Your task to perform on an android device: turn off location history Image 0: 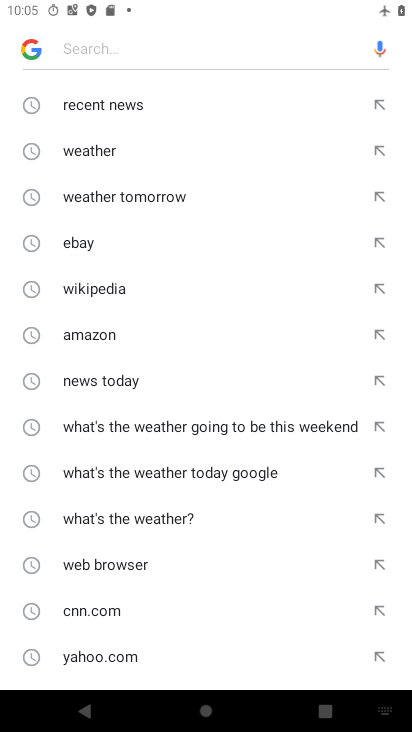
Step 0: press home button
Your task to perform on an android device: turn off location history Image 1: 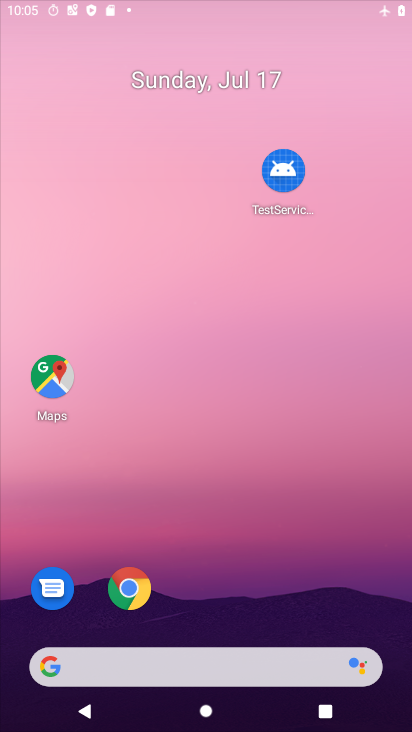
Step 1: drag from (201, 422) to (262, 41)
Your task to perform on an android device: turn off location history Image 2: 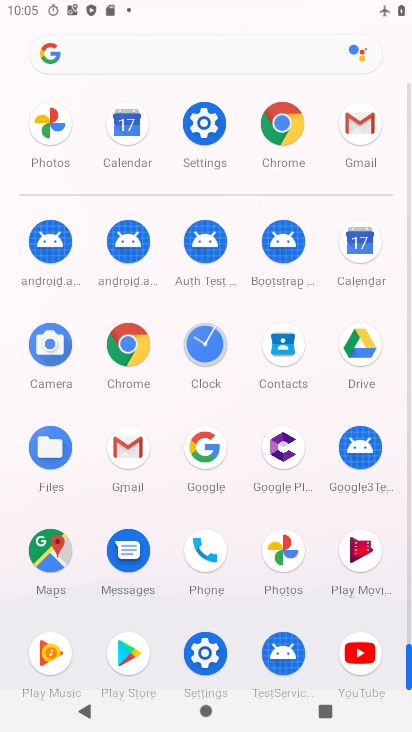
Step 2: click (199, 140)
Your task to perform on an android device: turn off location history Image 3: 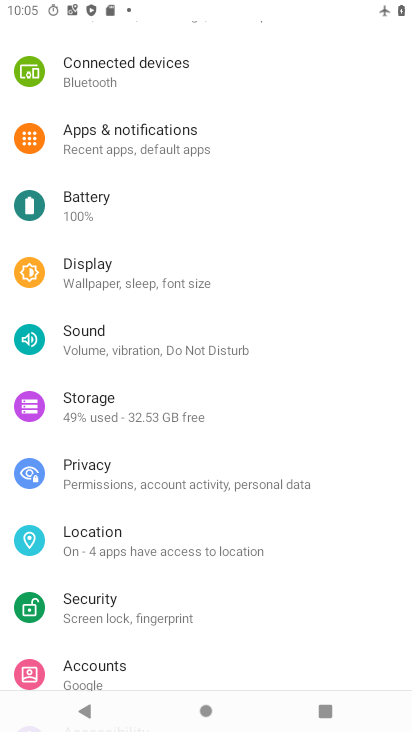
Step 3: click (156, 555)
Your task to perform on an android device: turn off location history Image 4: 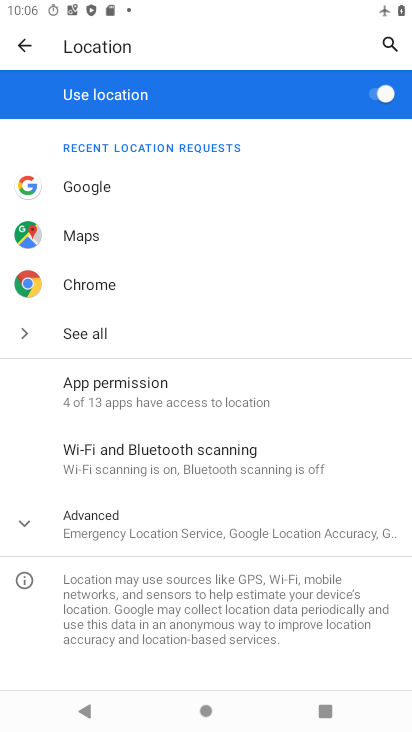
Step 4: click (185, 540)
Your task to perform on an android device: turn off location history Image 5: 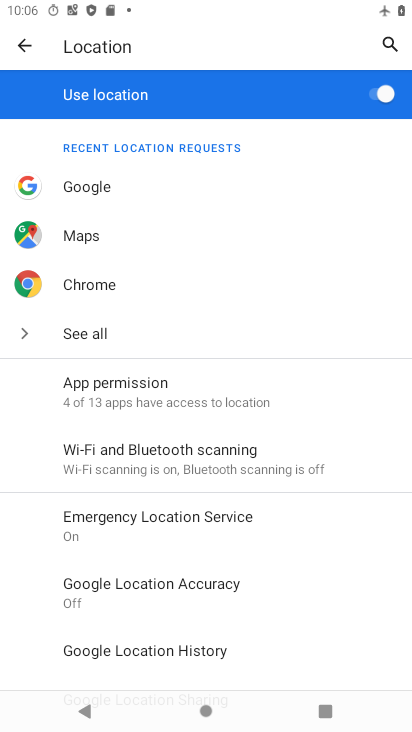
Step 5: click (205, 653)
Your task to perform on an android device: turn off location history Image 6: 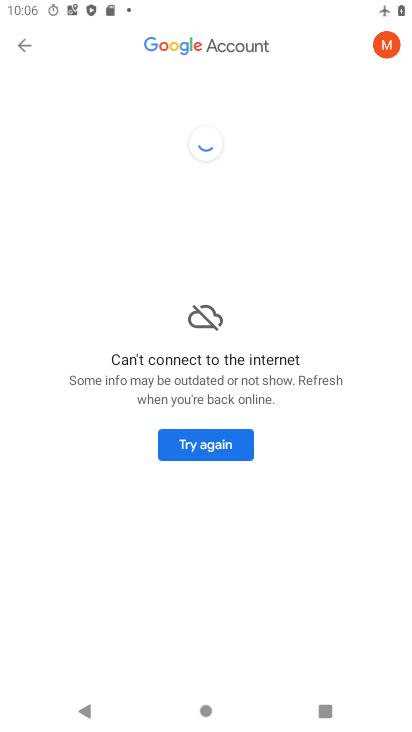
Step 6: task complete